Your task to perform on an android device: Go to ESPN.com Image 0: 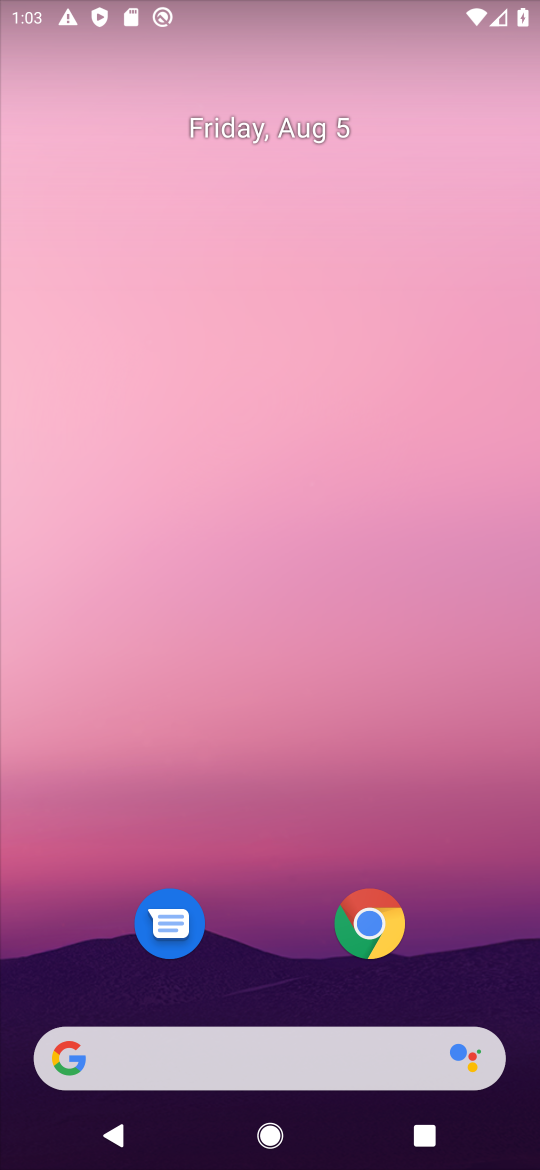
Step 0: click (359, 921)
Your task to perform on an android device: Go to ESPN.com Image 1: 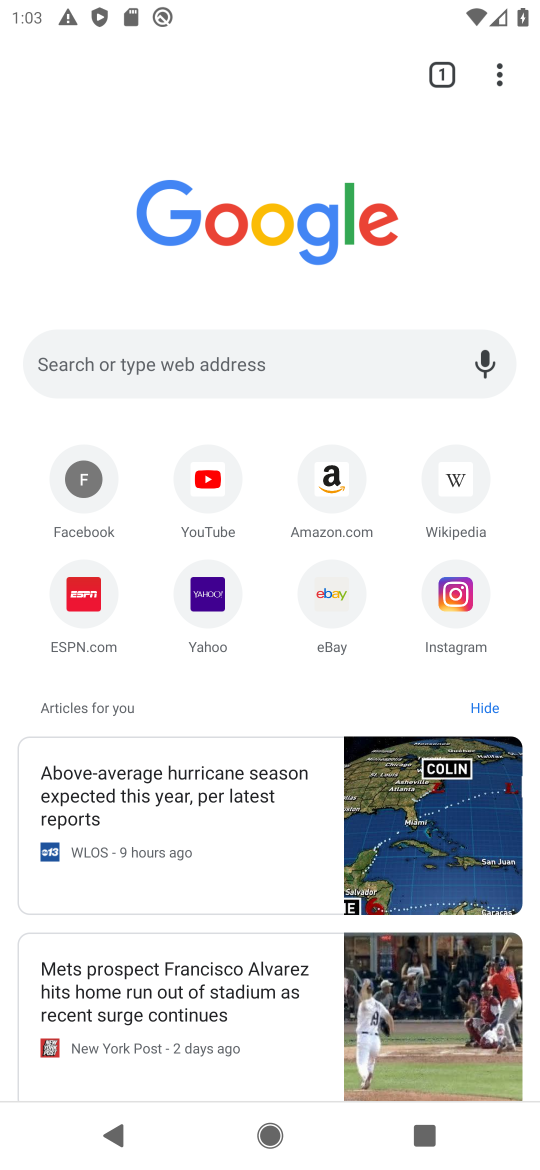
Step 1: click (89, 594)
Your task to perform on an android device: Go to ESPN.com Image 2: 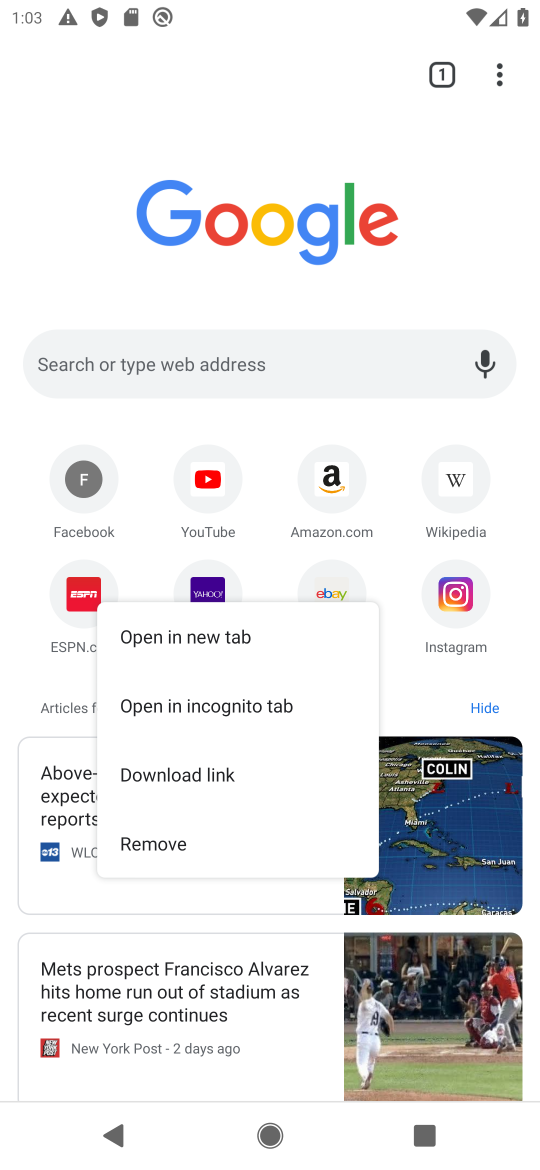
Step 2: click (76, 597)
Your task to perform on an android device: Go to ESPN.com Image 3: 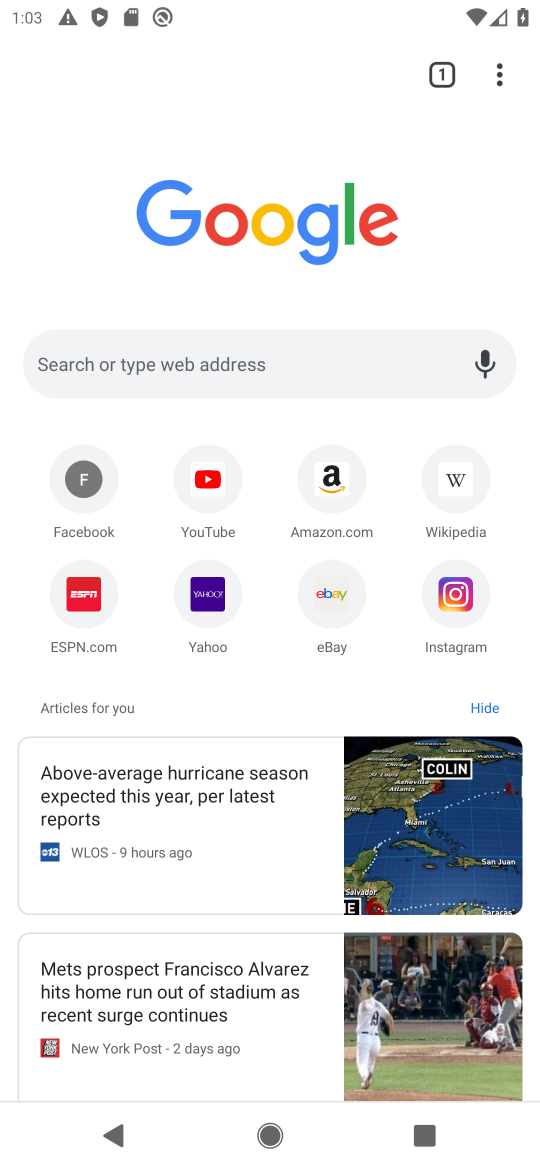
Step 3: click (101, 592)
Your task to perform on an android device: Go to ESPN.com Image 4: 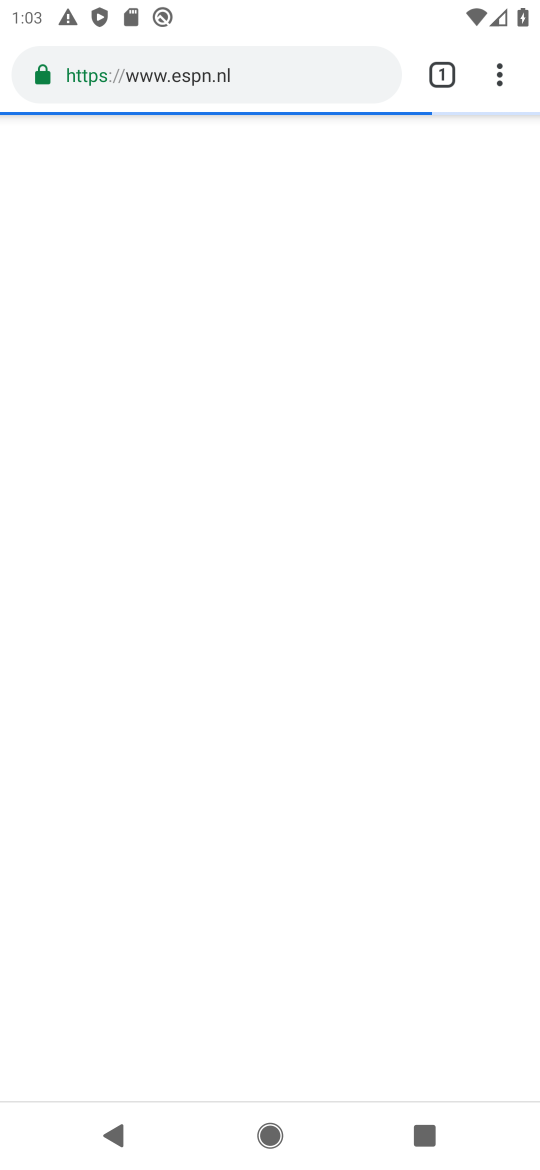
Step 4: task complete